Your task to perform on an android device: Open settings Image 0: 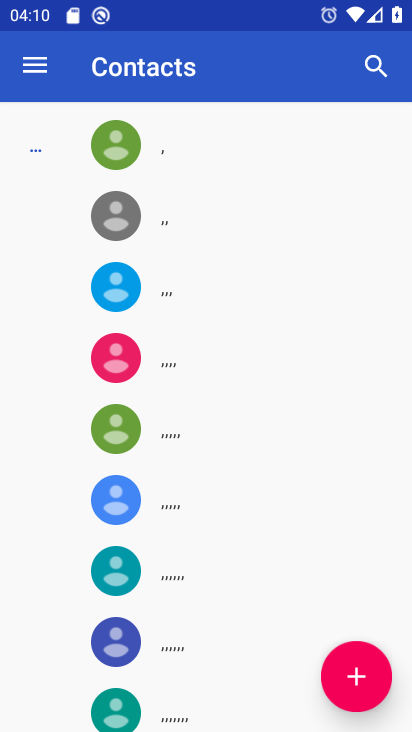
Step 0: press home button
Your task to perform on an android device: Open settings Image 1: 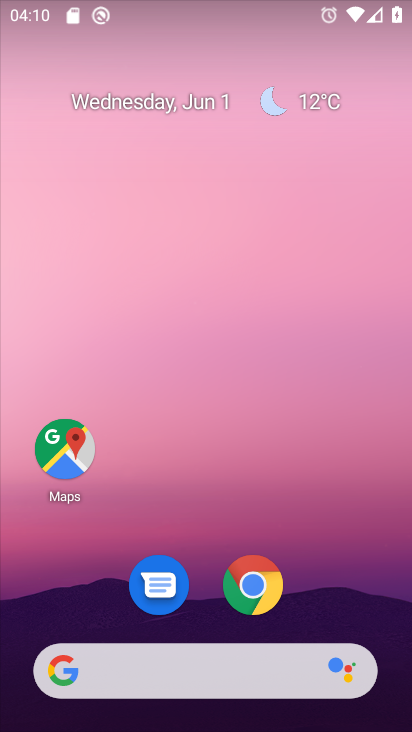
Step 1: drag from (229, 541) to (253, 0)
Your task to perform on an android device: Open settings Image 2: 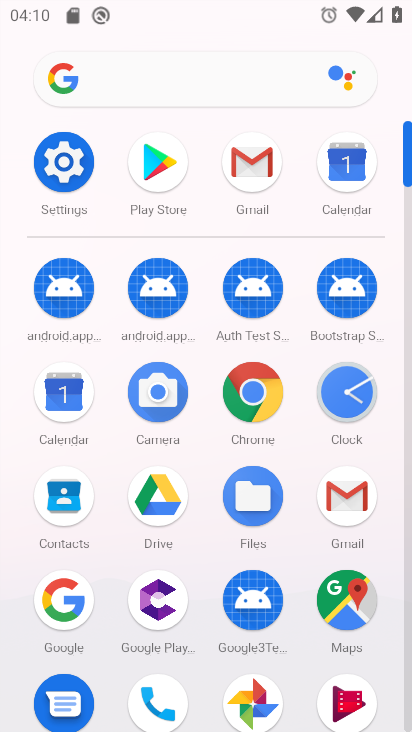
Step 2: click (60, 172)
Your task to perform on an android device: Open settings Image 3: 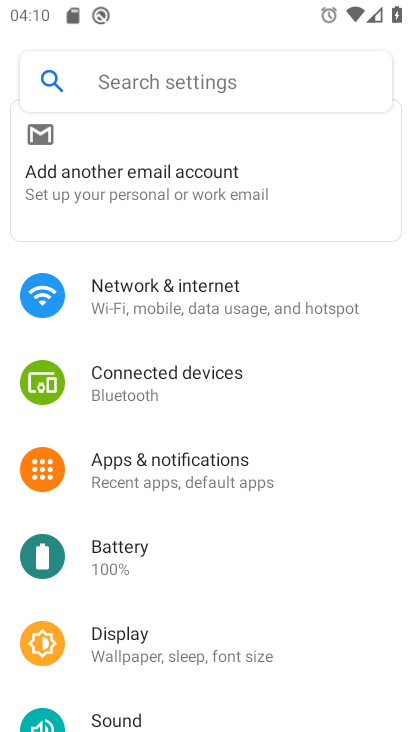
Step 3: task complete